Your task to perform on an android device: check out phone information Image 0: 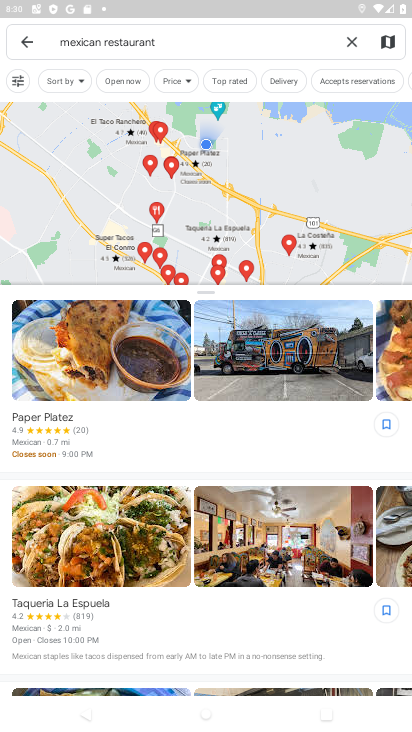
Step 0: press home button
Your task to perform on an android device: check out phone information Image 1: 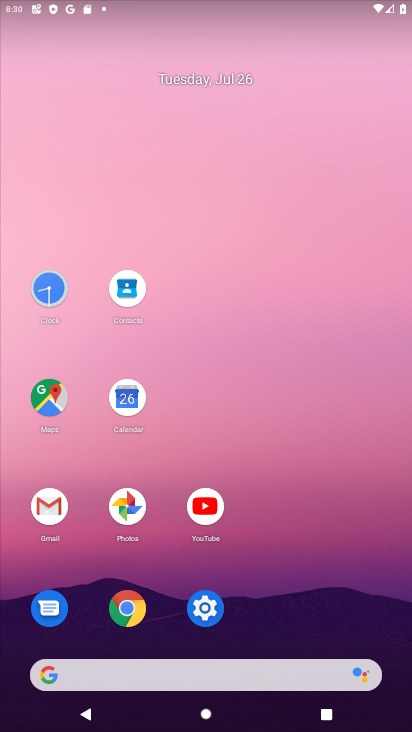
Step 1: click (198, 616)
Your task to perform on an android device: check out phone information Image 2: 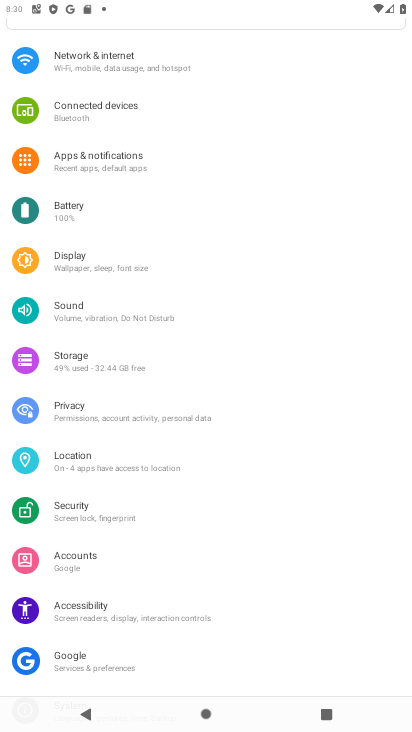
Step 2: drag from (277, 579) to (277, 216)
Your task to perform on an android device: check out phone information Image 3: 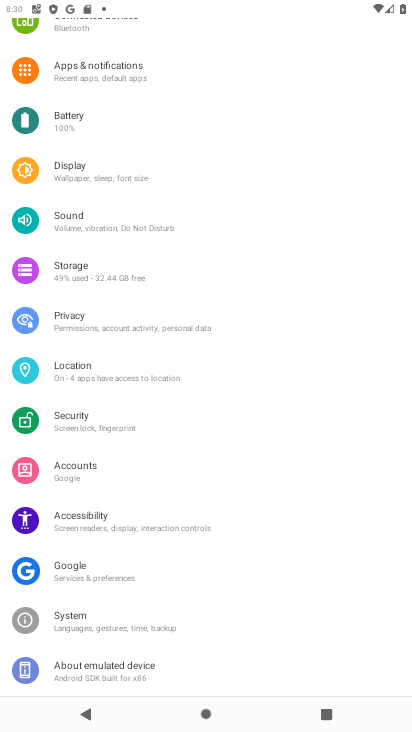
Step 3: click (97, 661)
Your task to perform on an android device: check out phone information Image 4: 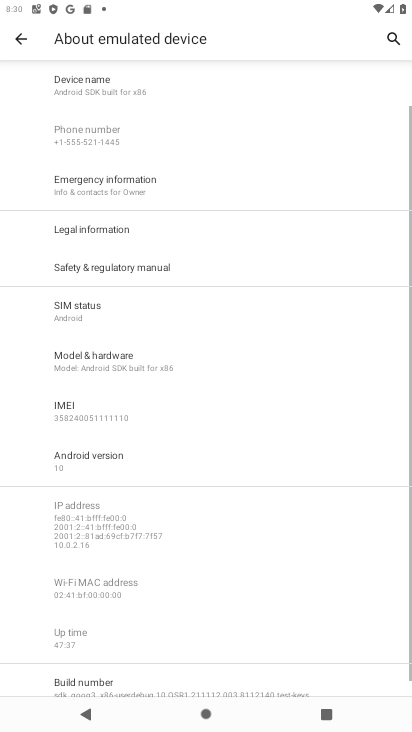
Step 4: task complete